Your task to perform on an android device: turn on the 24-hour format for clock Image 0: 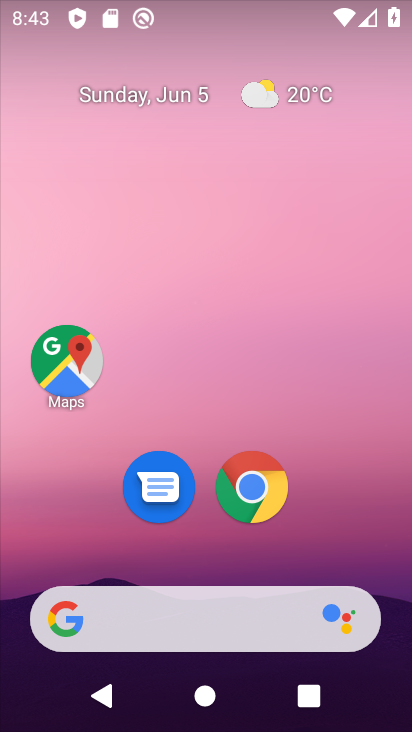
Step 0: drag from (209, 676) to (230, 257)
Your task to perform on an android device: turn on the 24-hour format for clock Image 1: 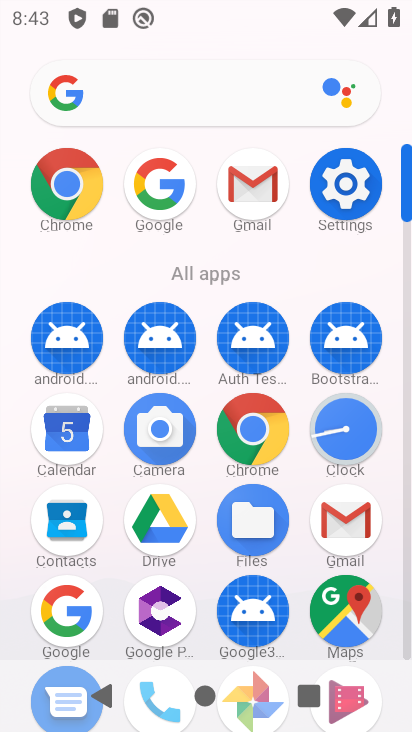
Step 1: click (365, 437)
Your task to perform on an android device: turn on the 24-hour format for clock Image 2: 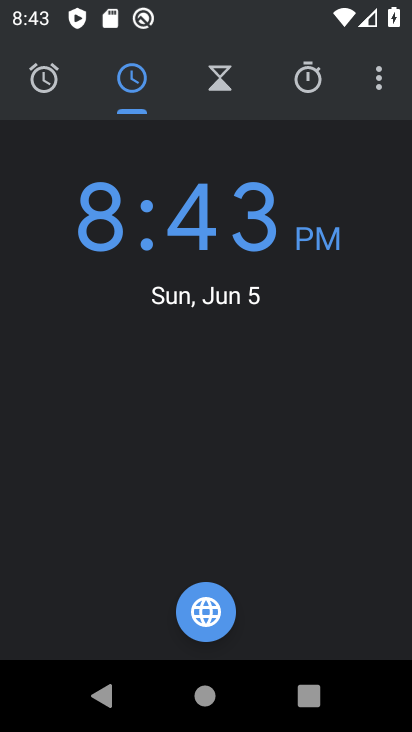
Step 2: click (387, 88)
Your task to perform on an android device: turn on the 24-hour format for clock Image 3: 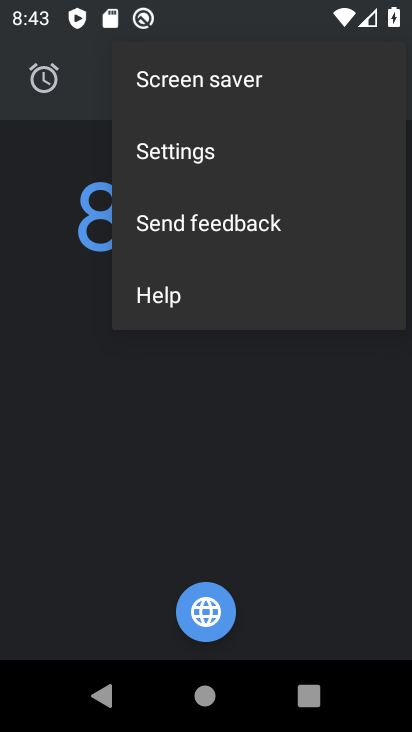
Step 3: click (181, 147)
Your task to perform on an android device: turn on the 24-hour format for clock Image 4: 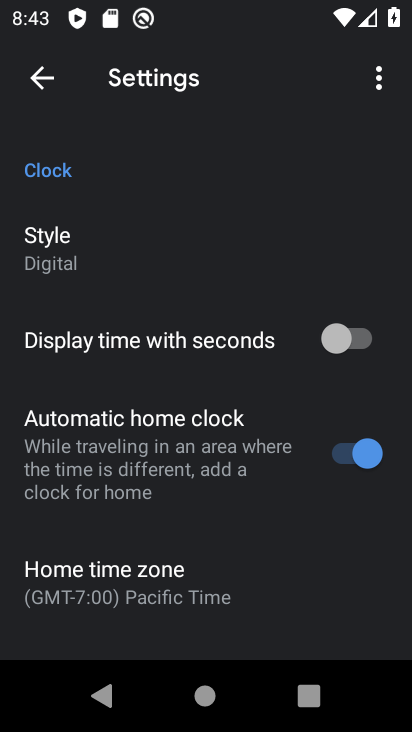
Step 4: drag from (234, 557) to (207, 248)
Your task to perform on an android device: turn on the 24-hour format for clock Image 5: 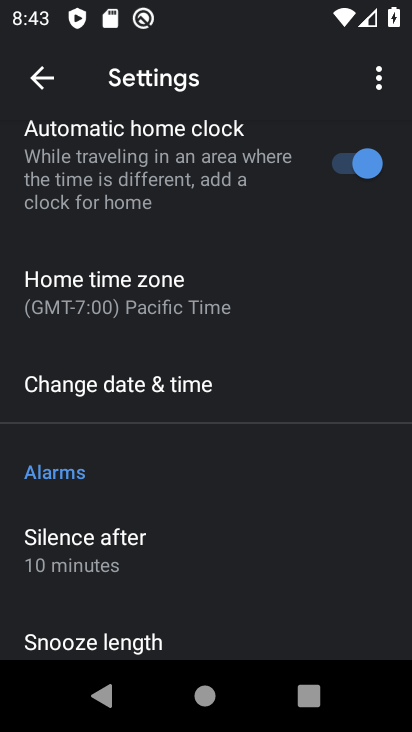
Step 5: click (188, 371)
Your task to perform on an android device: turn on the 24-hour format for clock Image 6: 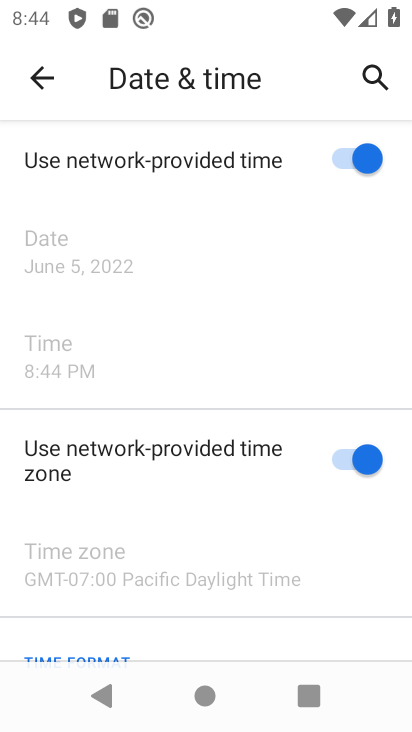
Step 6: task complete